Your task to perform on an android device: turn smart compose on in the gmail app Image 0: 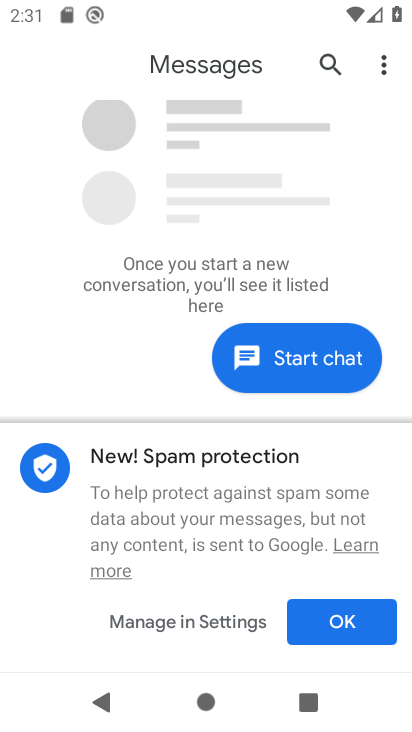
Step 0: press home button
Your task to perform on an android device: turn smart compose on in the gmail app Image 1: 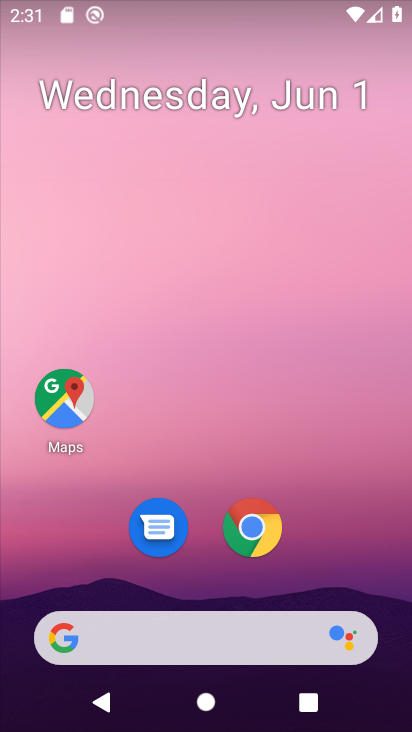
Step 1: drag from (232, 616) to (263, 185)
Your task to perform on an android device: turn smart compose on in the gmail app Image 2: 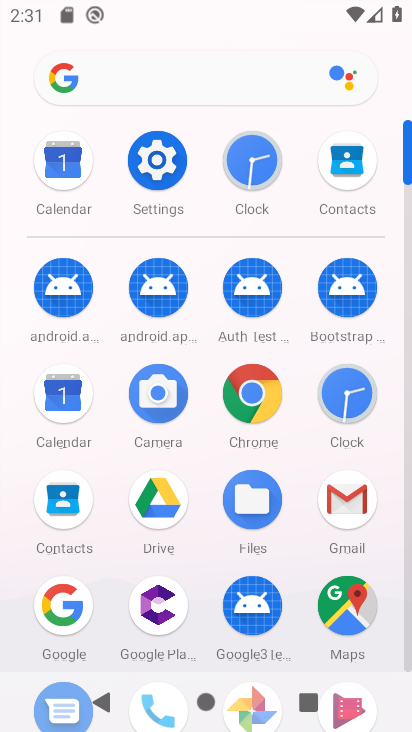
Step 2: click (360, 512)
Your task to perform on an android device: turn smart compose on in the gmail app Image 3: 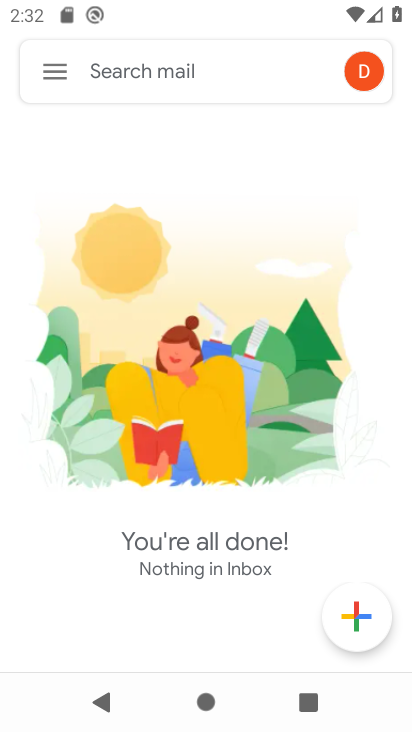
Step 3: click (52, 63)
Your task to perform on an android device: turn smart compose on in the gmail app Image 4: 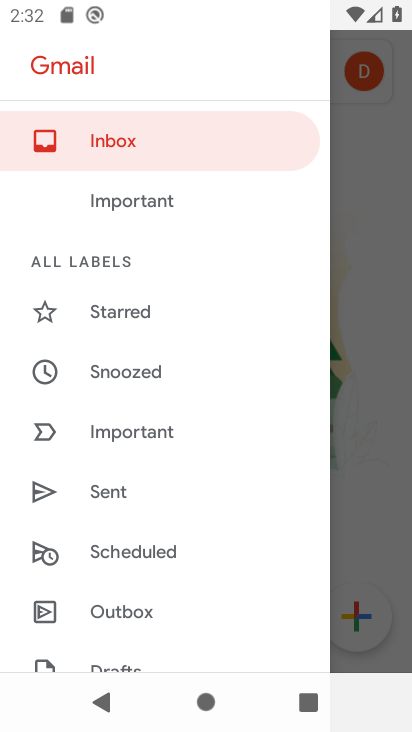
Step 4: drag from (135, 587) to (227, 32)
Your task to perform on an android device: turn smart compose on in the gmail app Image 5: 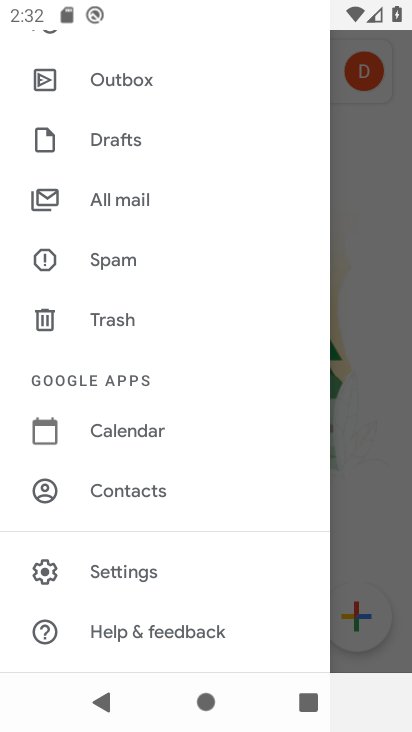
Step 5: click (141, 574)
Your task to perform on an android device: turn smart compose on in the gmail app Image 6: 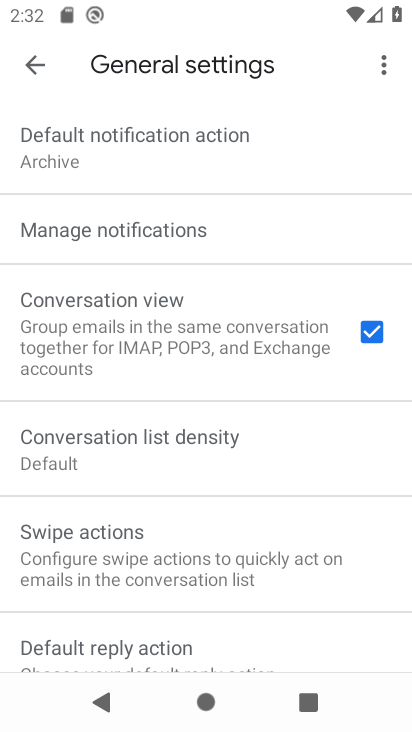
Step 6: click (36, 73)
Your task to perform on an android device: turn smart compose on in the gmail app Image 7: 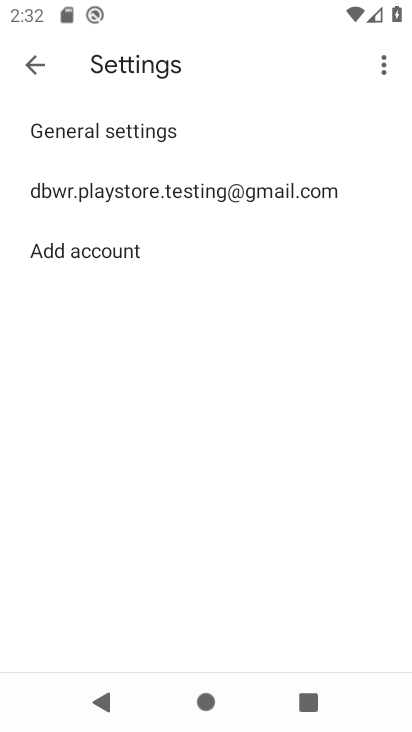
Step 7: click (181, 187)
Your task to perform on an android device: turn smart compose on in the gmail app Image 8: 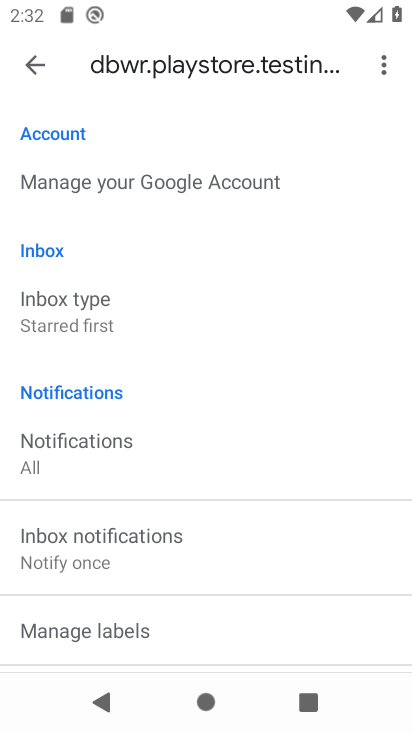
Step 8: task complete